Your task to perform on an android device: Open calendar and show me the second week of next month Image 0: 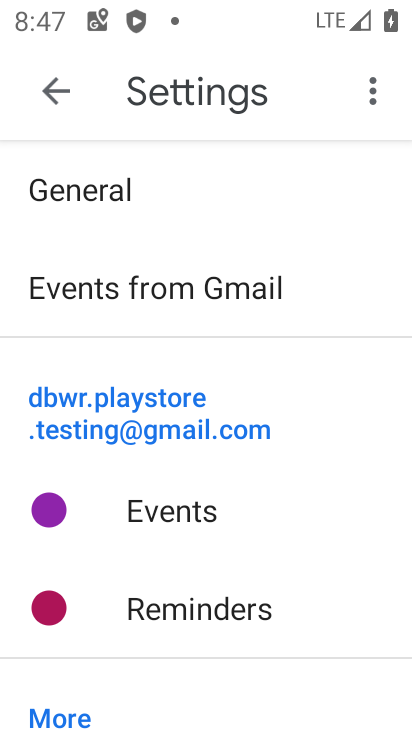
Step 0: press home button
Your task to perform on an android device: Open calendar and show me the second week of next month Image 1: 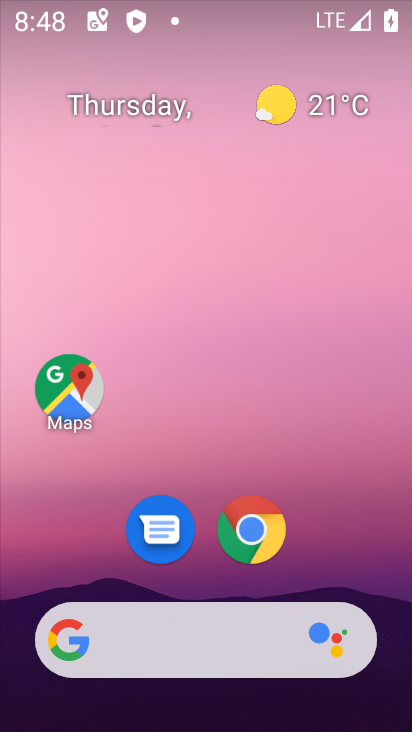
Step 1: drag from (247, 707) to (201, 88)
Your task to perform on an android device: Open calendar and show me the second week of next month Image 2: 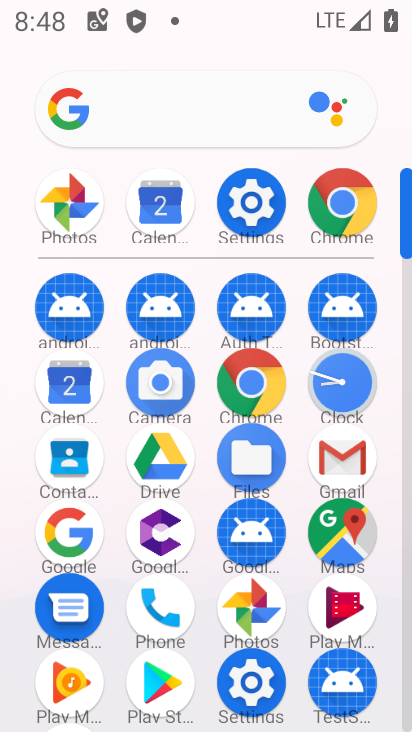
Step 2: click (70, 390)
Your task to perform on an android device: Open calendar and show me the second week of next month Image 3: 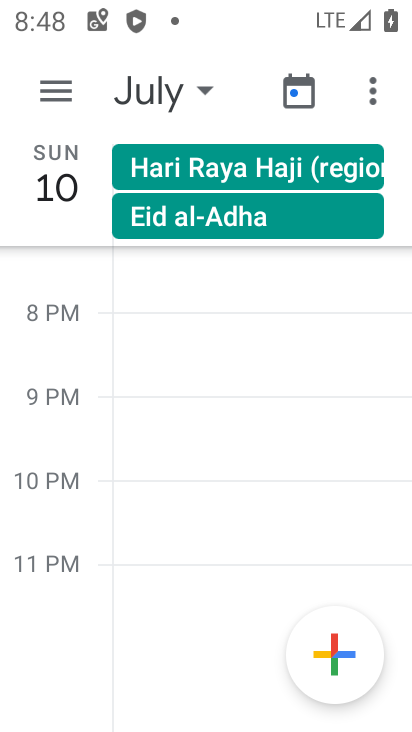
Step 3: click (151, 92)
Your task to perform on an android device: Open calendar and show me the second week of next month Image 4: 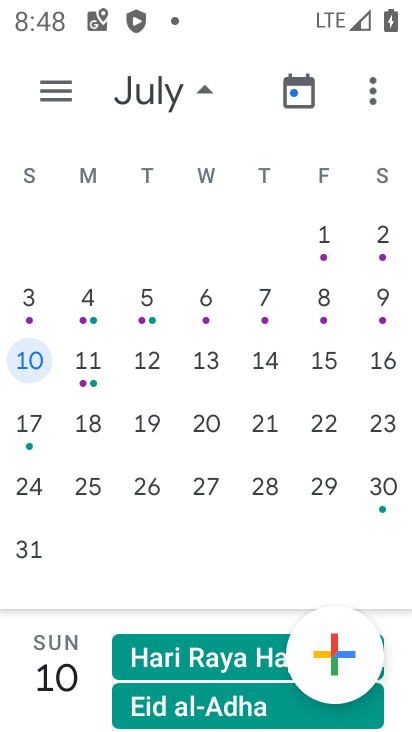
Step 4: click (17, 286)
Your task to perform on an android device: Open calendar and show me the second week of next month Image 5: 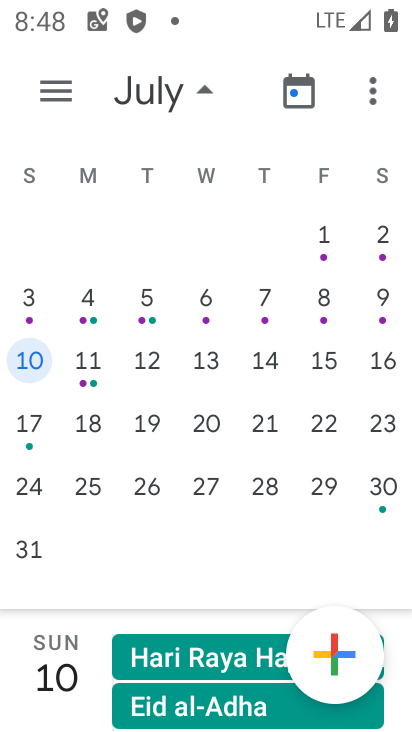
Step 5: click (30, 300)
Your task to perform on an android device: Open calendar and show me the second week of next month Image 6: 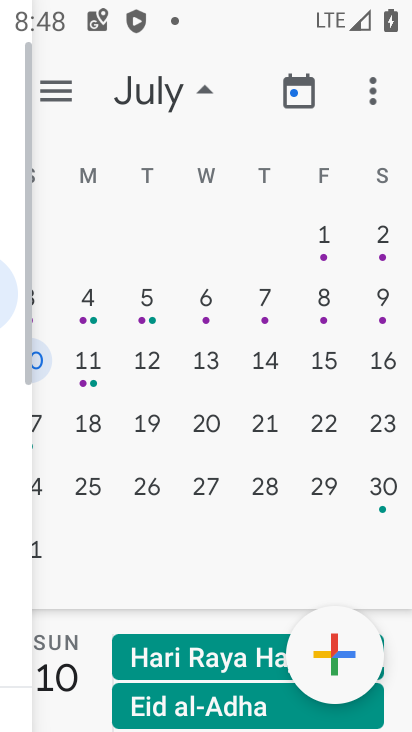
Step 6: click (30, 300)
Your task to perform on an android device: Open calendar and show me the second week of next month Image 7: 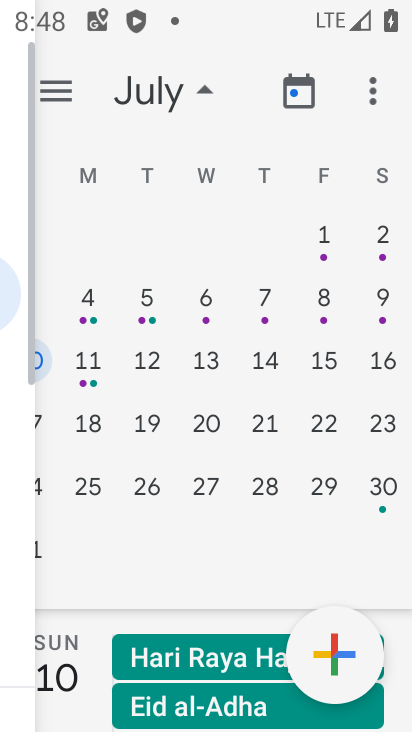
Step 7: click (31, 300)
Your task to perform on an android device: Open calendar and show me the second week of next month Image 8: 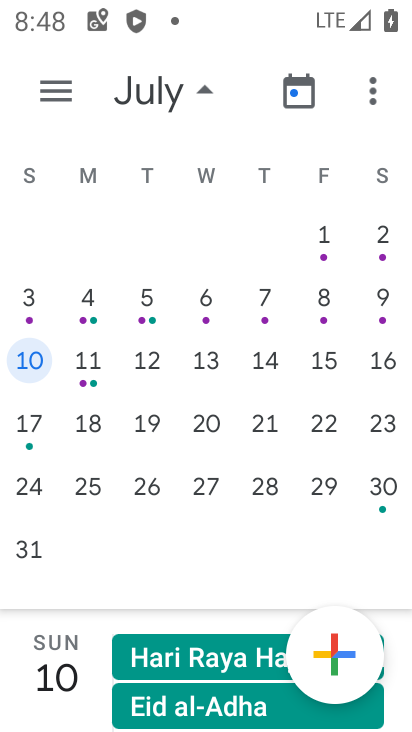
Step 8: click (32, 300)
Your task to perform on an android device: Open calendar and show me the second week of next month Image 9: 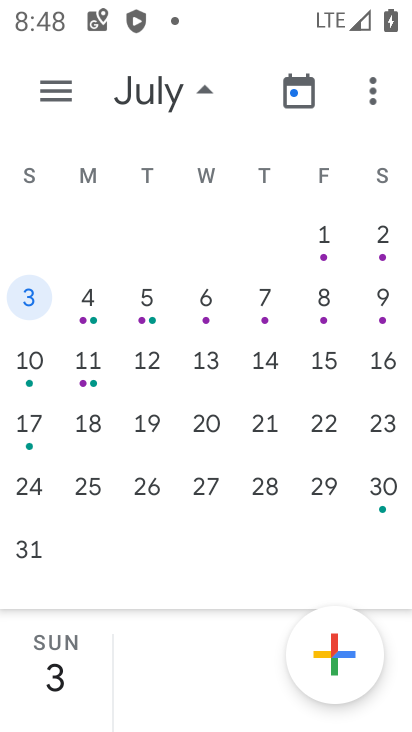
Step 9: click (33, 303)
Your task to perform on an android device: Open calendar and show me the second week of next month Image 10: 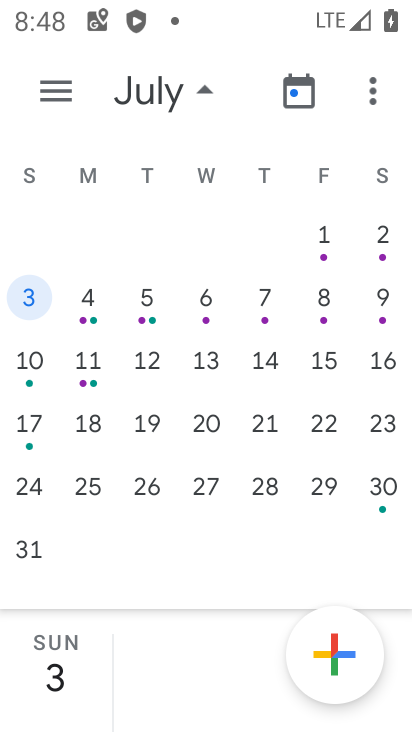
Step 10: task complete